Your task to perform on an android device: see tabs open on other devices in the chrome app Image 0: 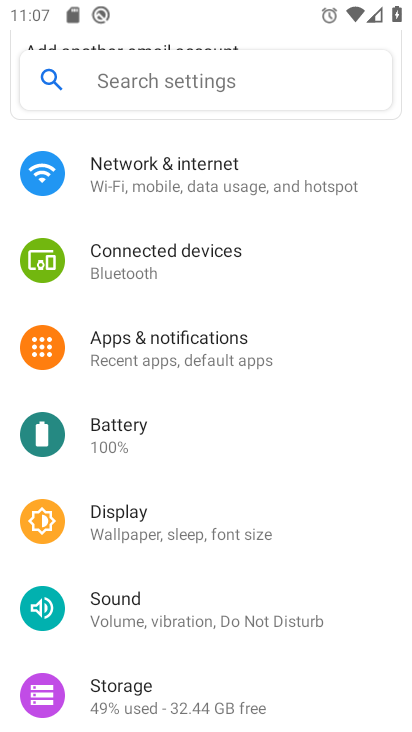
Step 0: drag from (205, 479) to (242, 333)
Your task to perform on an android device: see tabs open on other devices in the chrome app Image 1: 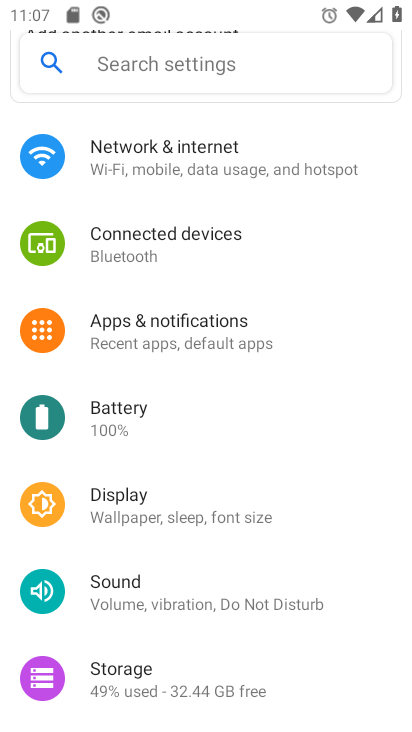
Step 1: press home button
Your task to perform on an android device: see tabs open on other devices in the chrome app Image 2: 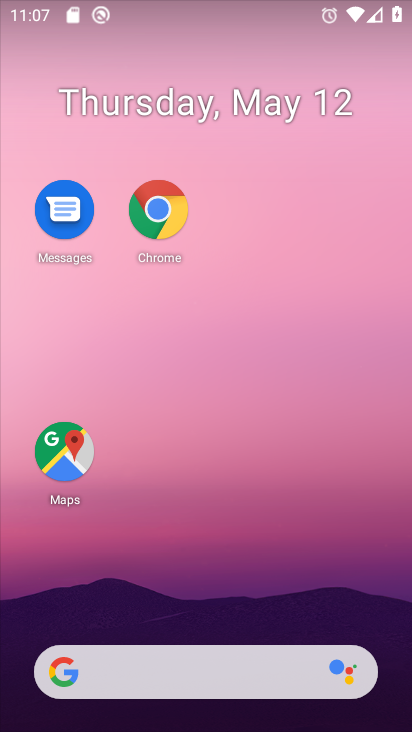
Step 2: click (164, 261)
Your task to perform on an android device: see tabs open on other devices in the chrome app Image 3: 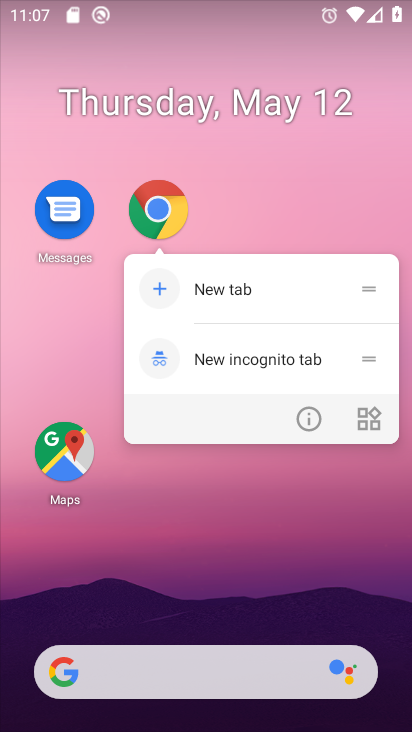
Step 3: click (154, 226)
Your task to perform on an android device: see tabs open on other devices in the chrome app Image 4: 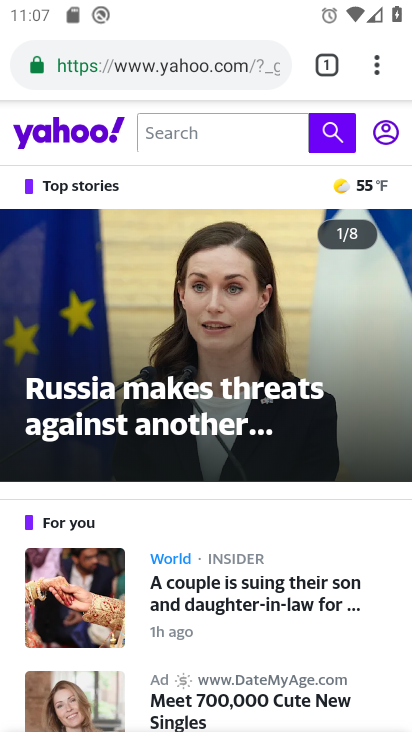
Step 4: click (375, 74)
Your task to perform on an android device: see tabs open on other devices in the chrome app Image 5: 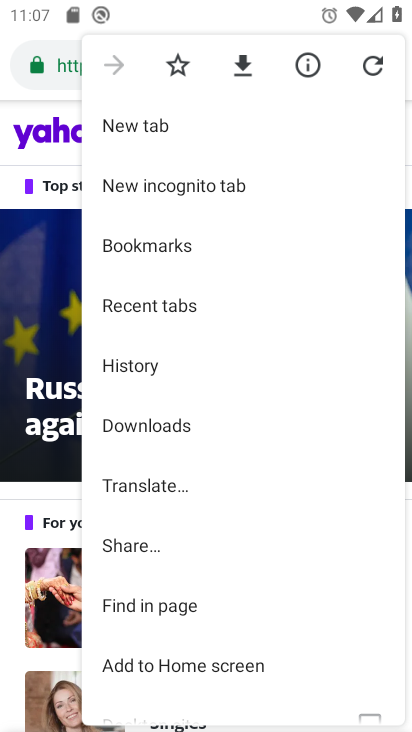
Step 5: click (185, 308)
Your task to perform on an android device: see tabs open on other devices in the chrome app Image 6: 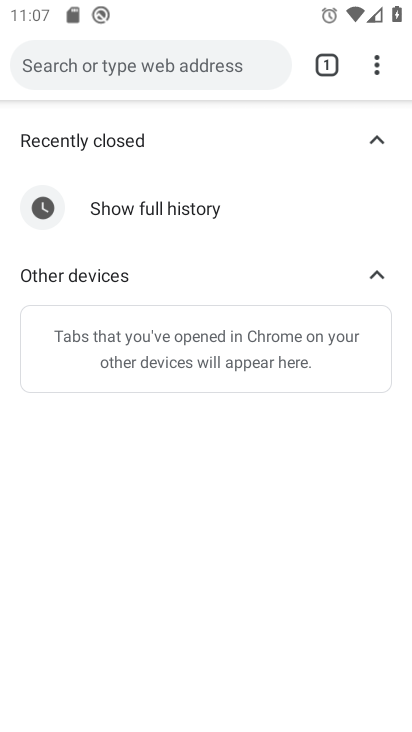
Step 6: task complete